Your task to perform on an android device: see tabs open on other devices in the chrome app Image 0: 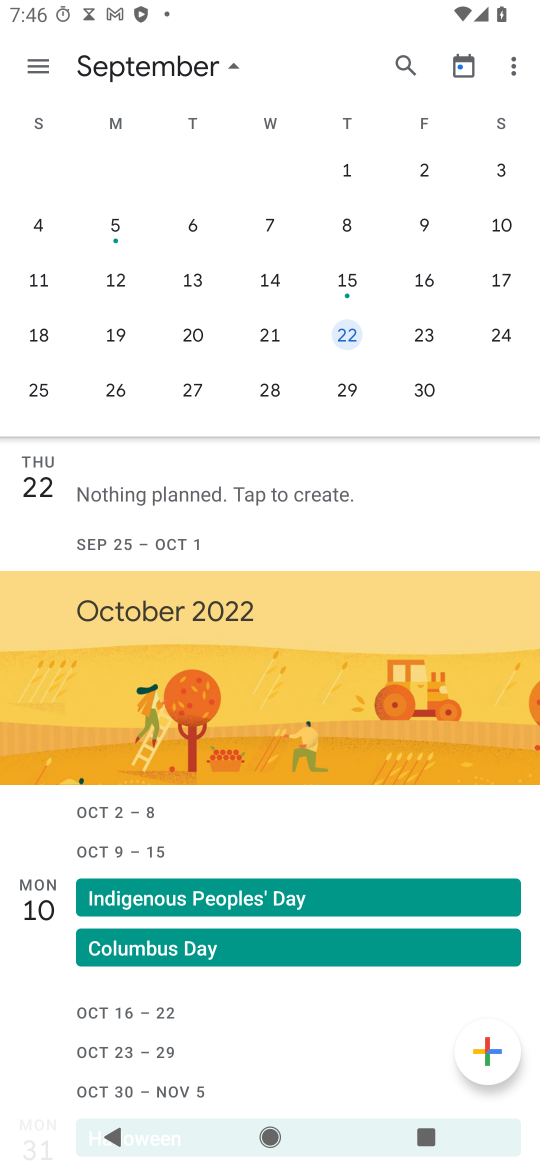
Step 0: press home button
Your task to perform on an android device: see tabs open on other devices in the chrome app Image 1: 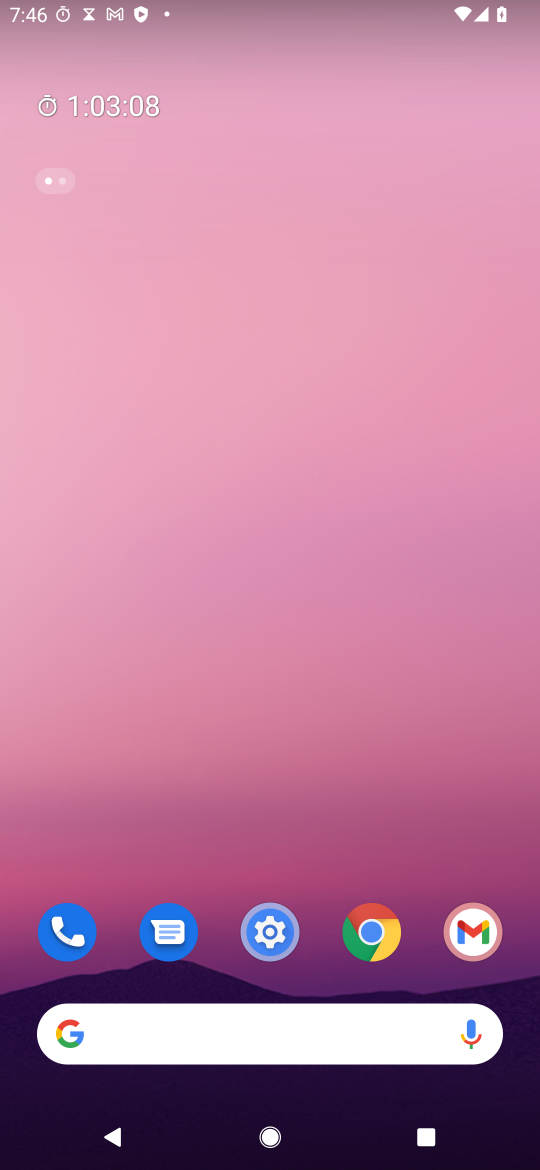
Step 1: drag from (376, 853) to (386, 73)
Your task to perform on an android device: see tabs open on other devices in the chrome app Image 2: 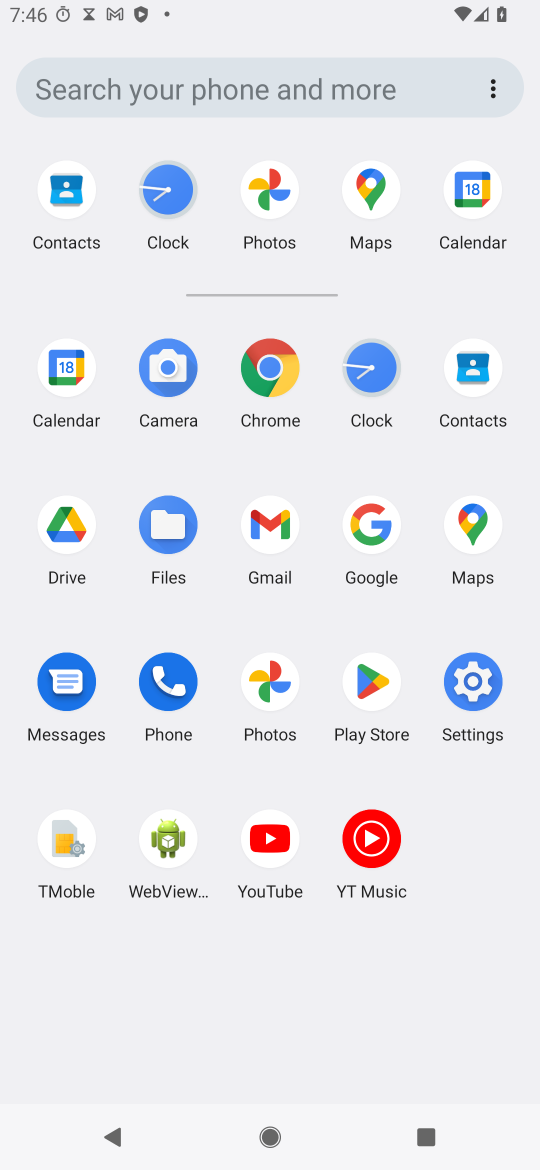
Step 2: click (266, 360)
Your task to perform on an android device: see tabs open on other devices in the chrome app Image 3: 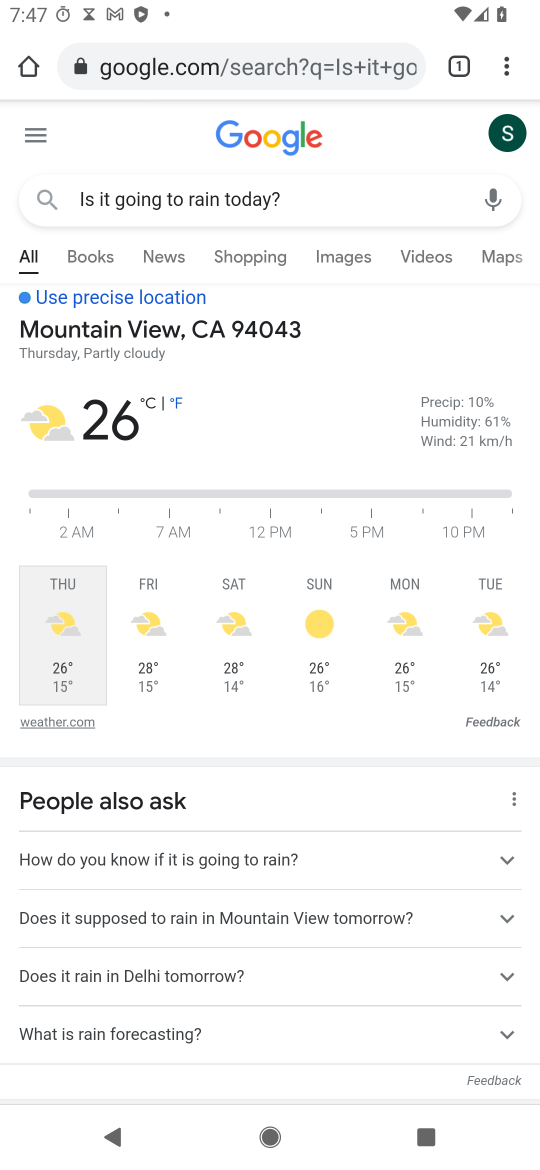
Step 3: task complete